Your task to perform on an android device: move an email to a new category in the gmail app Image 0: 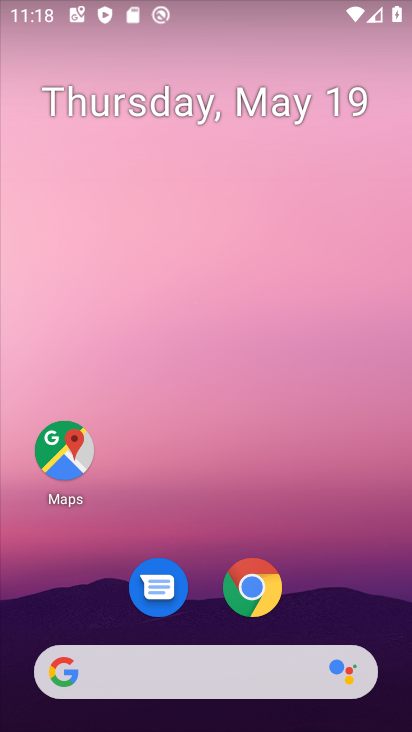
Step 0: drag from (174, 696) to (145, 351)
Your task to perform on an android device: move an email to a new category in the gmail app Image 1: 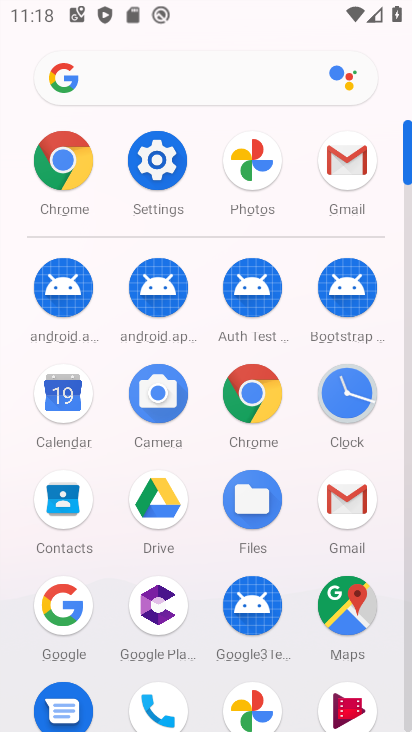
Step 1: click (356, 494)
Your task to perform on an android device: move an email to a new category in the gmail app Image 2: 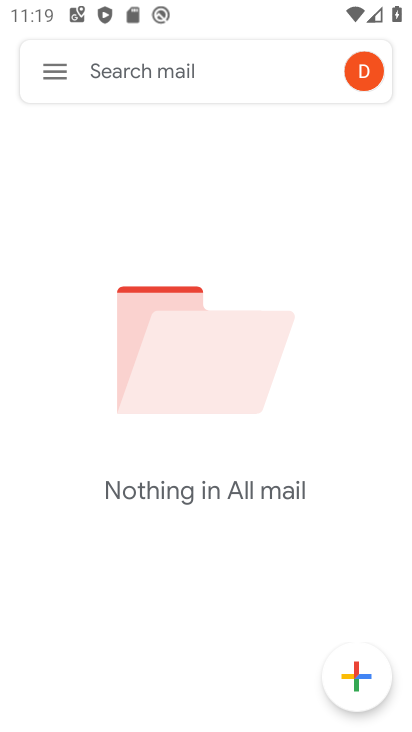
Step 2: task complete